Your task to perform on an android device: Go to notification settings Image 0: 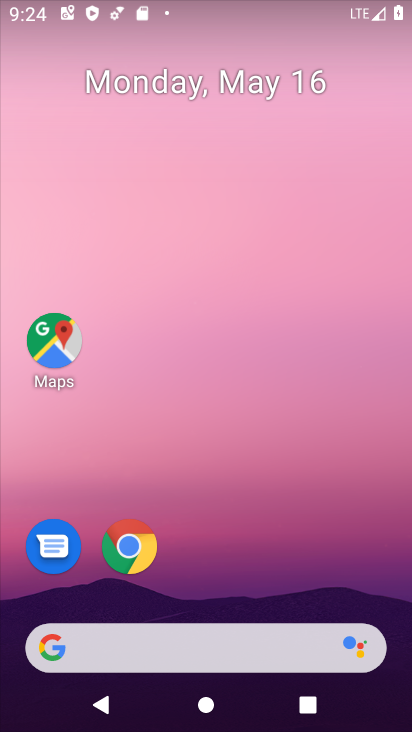
Step 0: drag from (252, 658) to (344, 6)
Your task to perform on an android device: Go to notification settings Image 1: 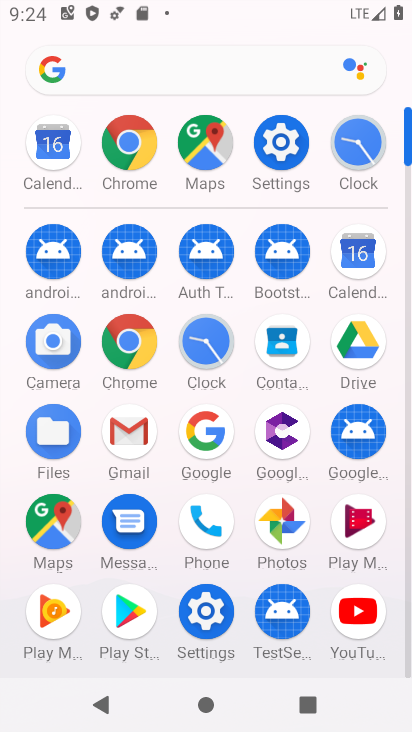
Step 1: click (281, 147)
Your task to perform on an android device: Go to notification settings Image 2: 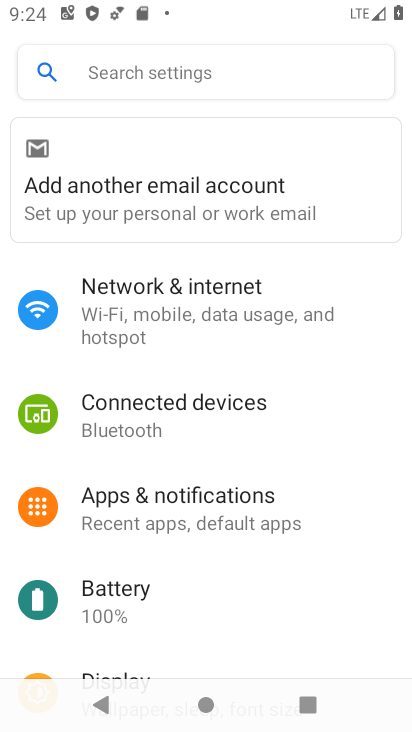
Step 2: click (193, 78)
Your task to perform on an android device: Go to notification settings Image 3: 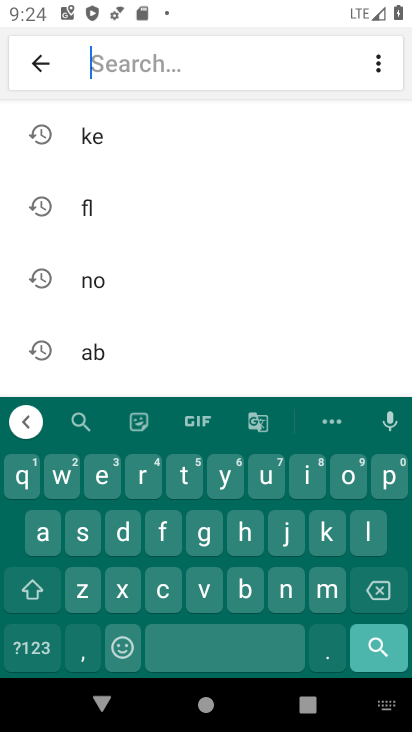
Step 3: click (151, 284)
Your task to perform on an android device: Go to notification settings Image 4: 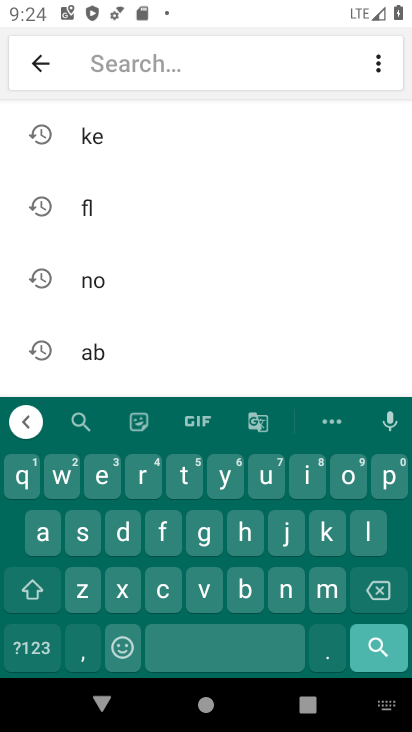
Step 4: click (164, 283)
Your task to perform on an android device: Go to notification settings Image 5: 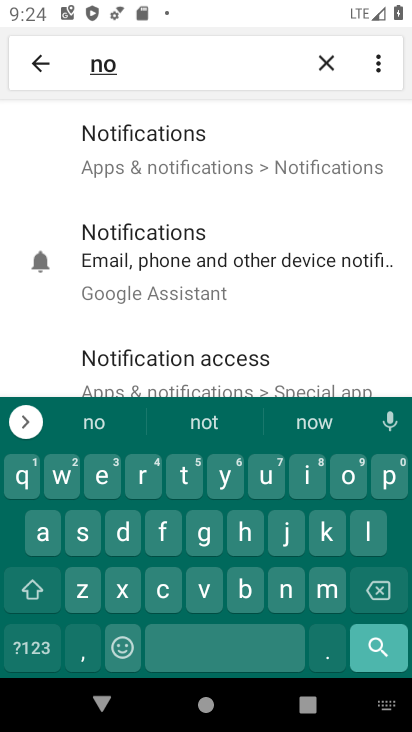
Step 5: click (224, 144)
Your task to perform on an android device: Go to notification settings Image 6: 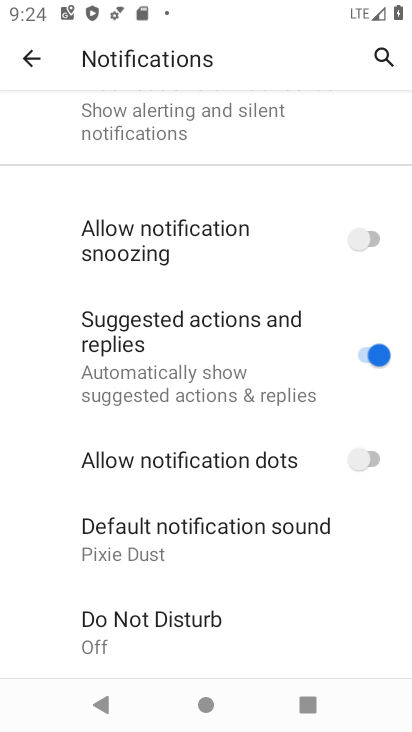
Step 6: click (227, 110)
Your task to perform on an android device: Go to notification settings Image 7: 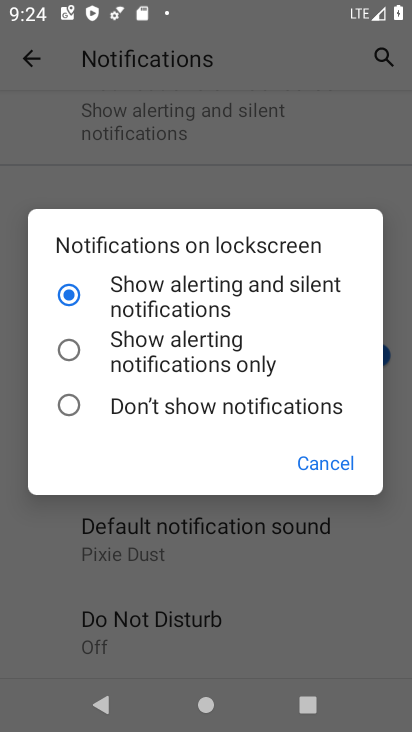
Step 7: task complete